Your task to perform on an android device: Open Android settings Image 0: 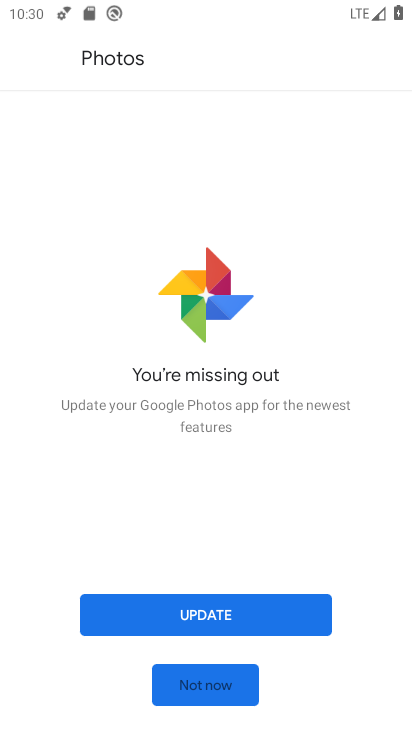
Step 0: press home button
Your task to perform on an android device: Open Android settings Image 1: 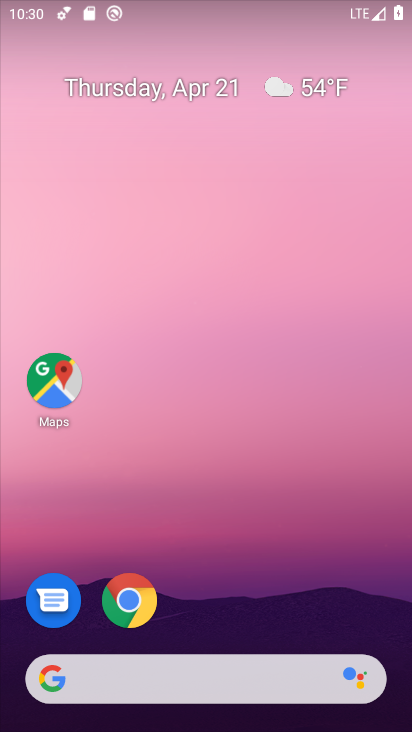
Step 1: drag from (240, 595) to (194, 21)
Your task to perform on an android device: Open Android settings Image 2: 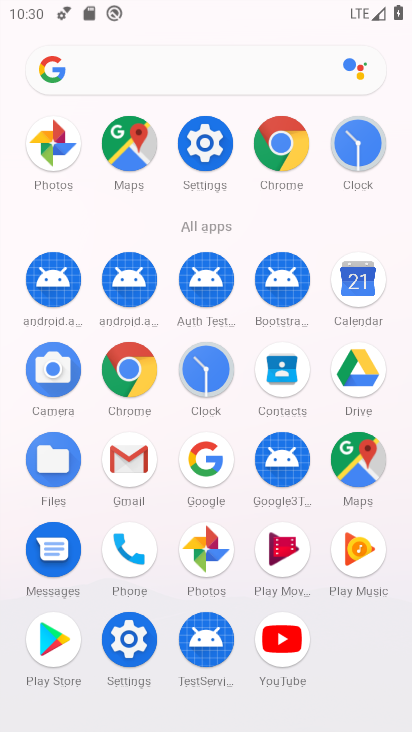
Step 2: click (206, 152)
Your task to perform on an android device: Open Android settings Image 3: 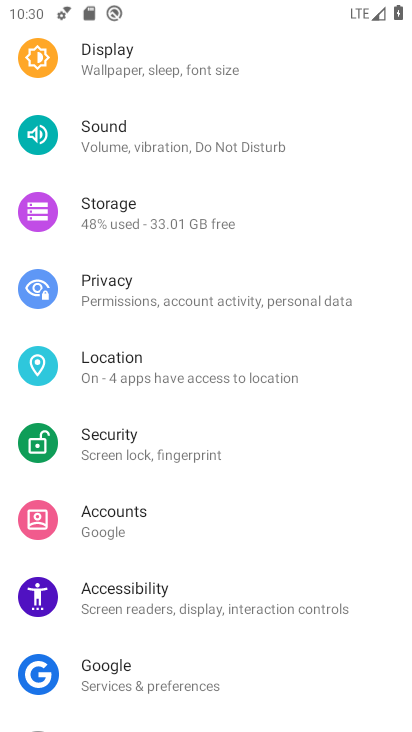
Step 3: drag from (263, 639) to (203, 116)
Your task to perform on an android device: Open Android settings Image 4: 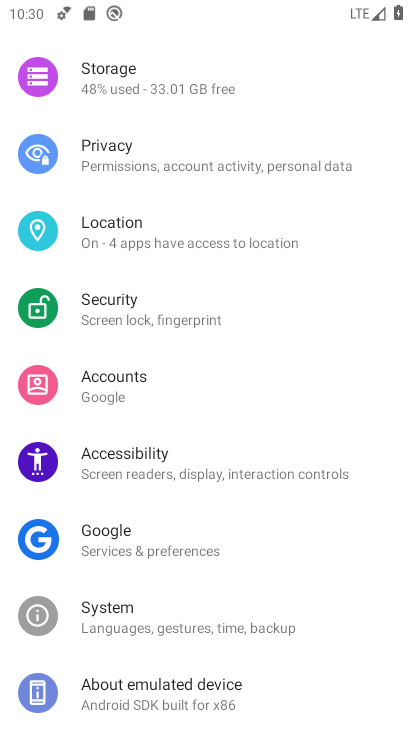
Step 4: drag from (212, 646) to (225, 286)
Your task to perform on an android device: Open Android settings Image 5: 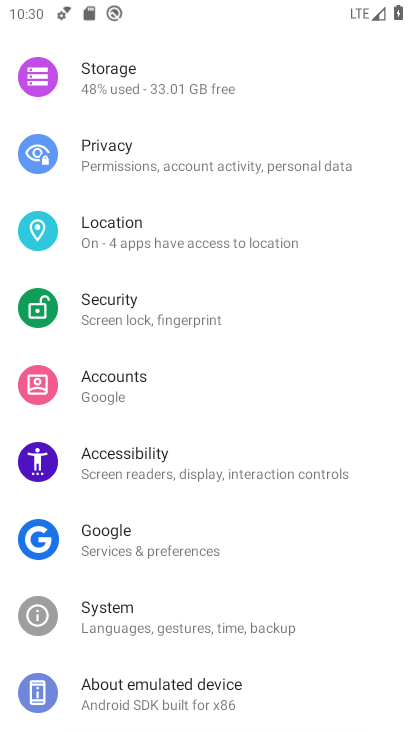
Step 5: click (210, 691)
Your task to perform on an android device: Open Android settings Image 6: 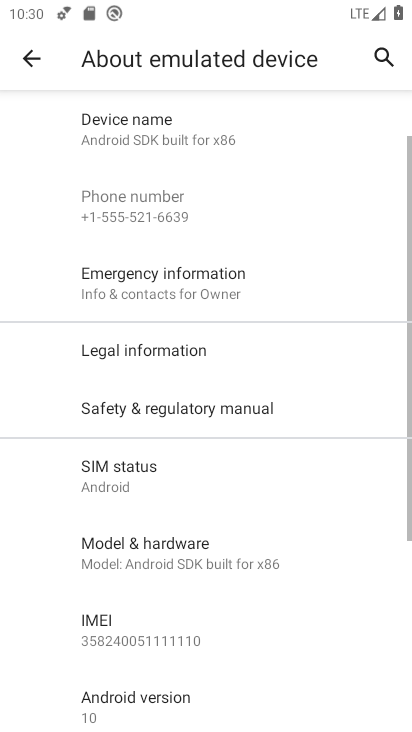
Step 6: drag from (218, 682) to (245, 325)
Your task to perform on an android device: Open Android settings Image 7: 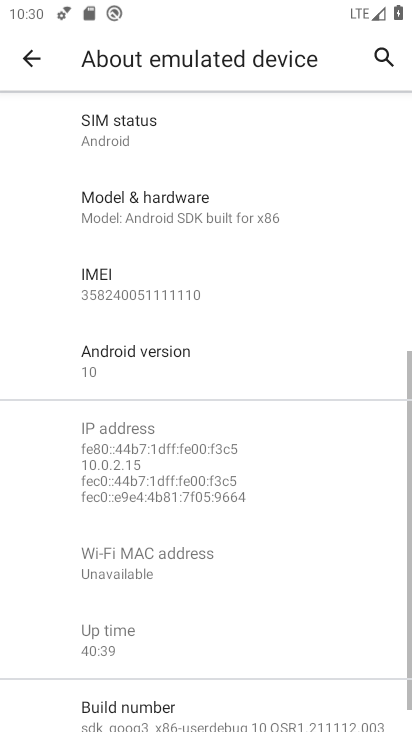
Step 7: click (157, 375)
Your task to perform on an android device: Open Android settings Image 8: 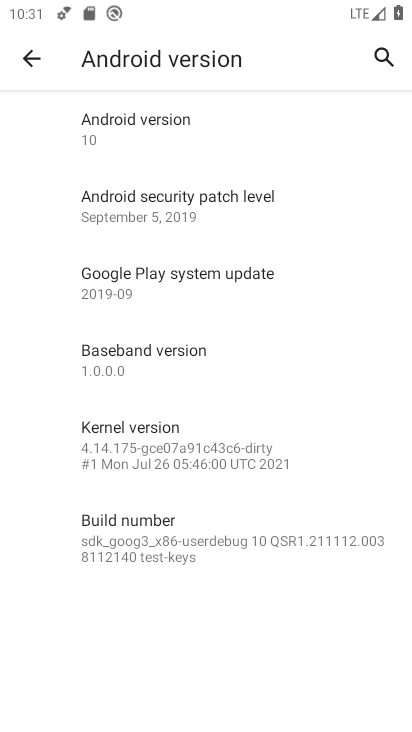
Step 8: task complete